Your task to perform on an android device: turn off wifi Image 0: 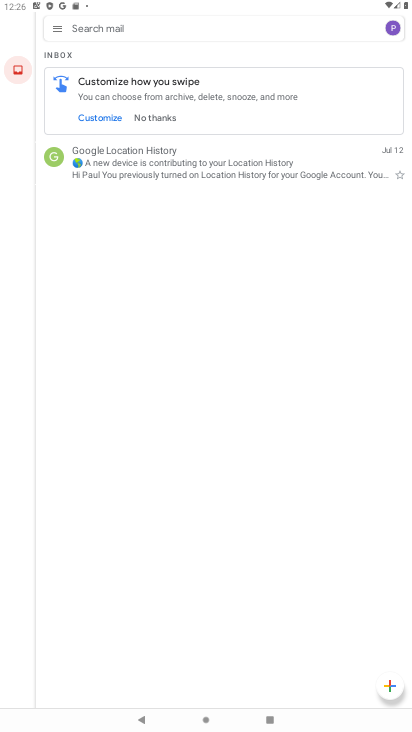
Step 0: press home button
Your task to perform on an android device: turn off wifi Image 1: 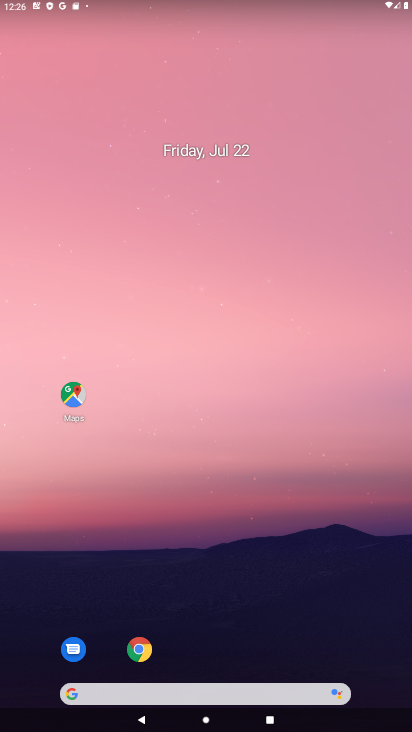
Step 1: drag from (221, 727) to (242, 281)
Your task to perform on an android device: turn off wifi Image 2: 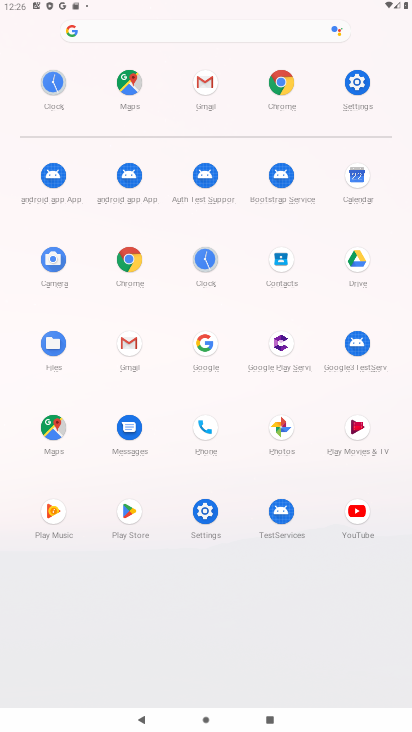
Step 2: click (356, 85)
Your task to perform on an android device: turn off wifi Image 3: 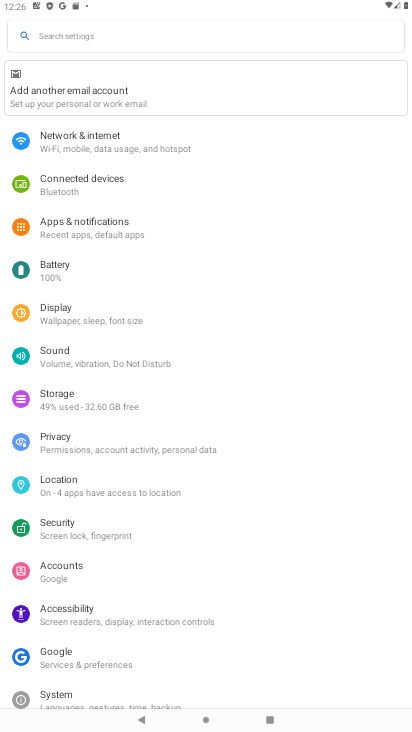
Step 3: click (83, 145)
Your task to perform on an android device: turn off wifi Image 4: 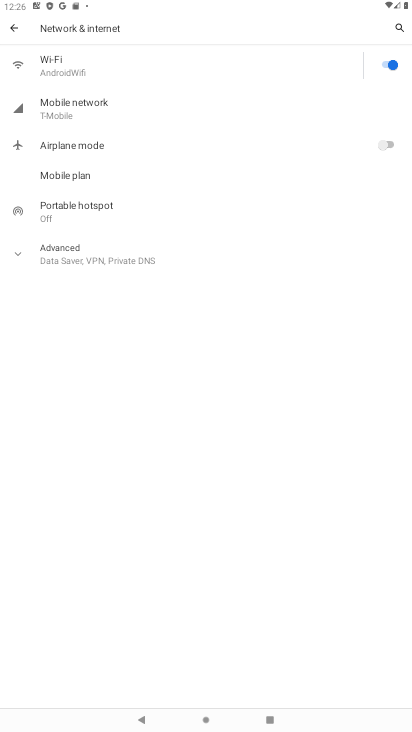
Step 4: click (63, 69)
Your task to perform on an android device: turn off wifi Image 5: 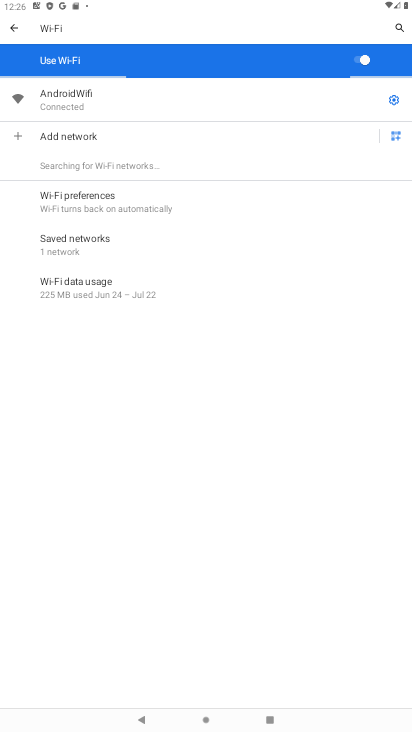
Step 5: click (362, 59)
Your task to perform on an android device: turn off wifi Image 6: 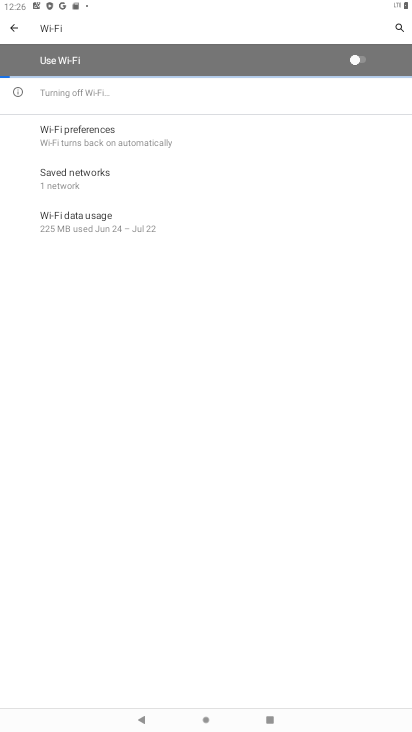
Step 6: task complete